Your task to perform on an android device: turn on notifications settings in the gmail app Image 0: 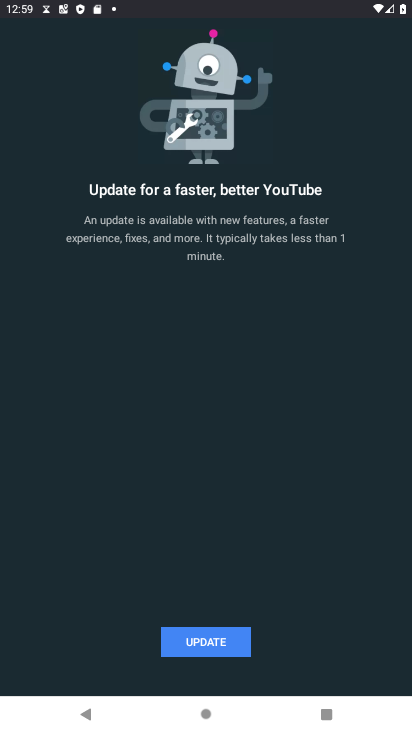
Step 0: press back button
Your task to perform on an android device: turn on notifications settings in the gmail app Image 1: 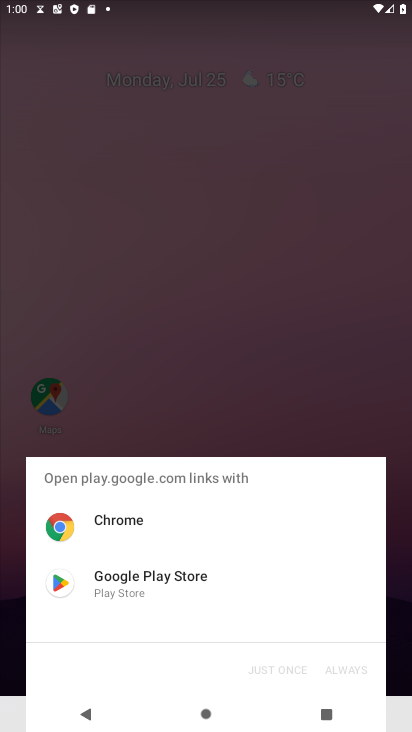
Step 1: press home button
Your task to perform on an android device: turn on notifications settings in the gmail app Image 2: 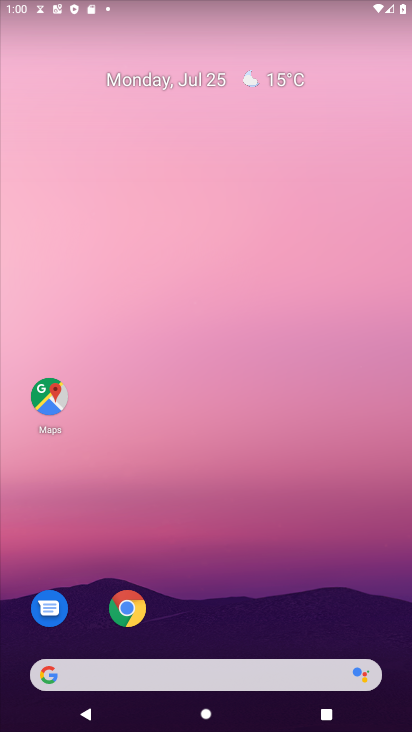
Step 2: drag from (261, 604) to (330, 123)
Your task to perform on an android device: turn on notifications settings in the gmail app Image 3: 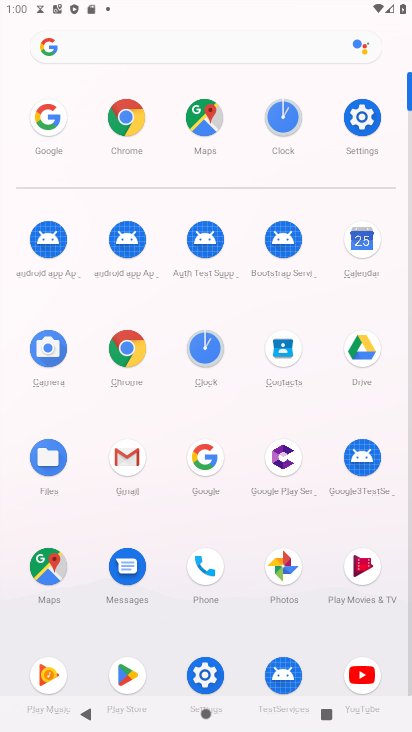
Step 3: click (136, 463)
Your task to perform on an android device: turn on notifications settings in the gmail app Image 4: 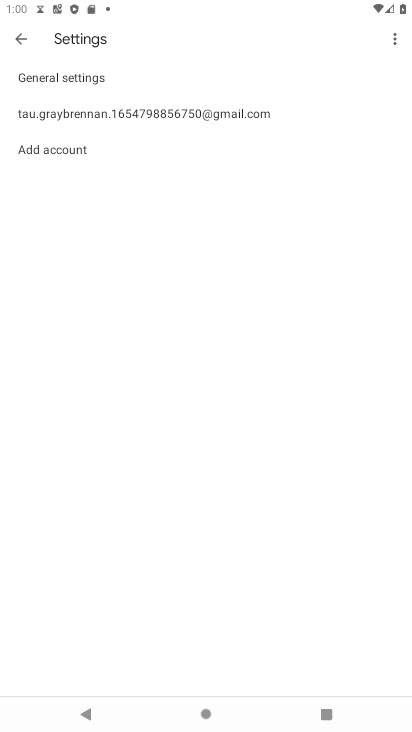
Step 4: click (208, 135)
Your task to perform on an android device: turn on notifications settings in the gmail app Image 5: 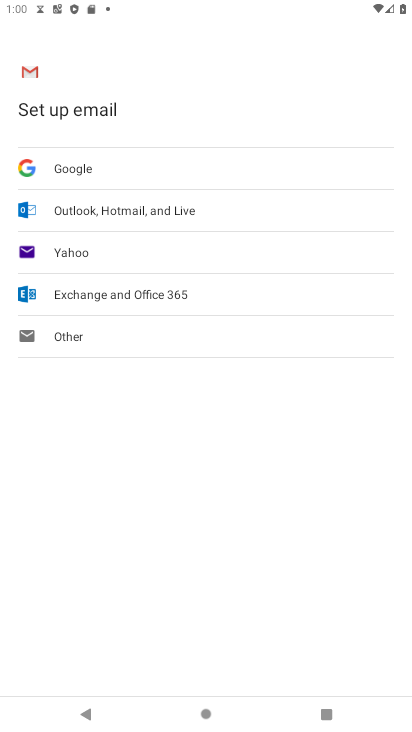
Step 5: press back button
Your task to perform on an android device: turn on notifications settings in the gmail app Image 6: 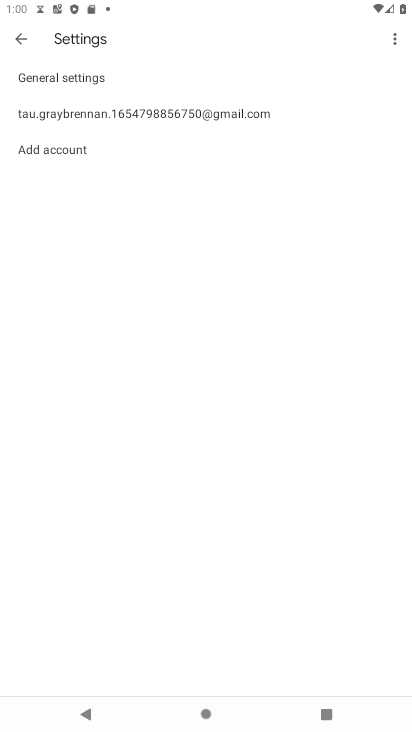
Step 6: click (186, 109)
Your task to perform on an android device: turn on notifications settings in the gmail app Image 7: 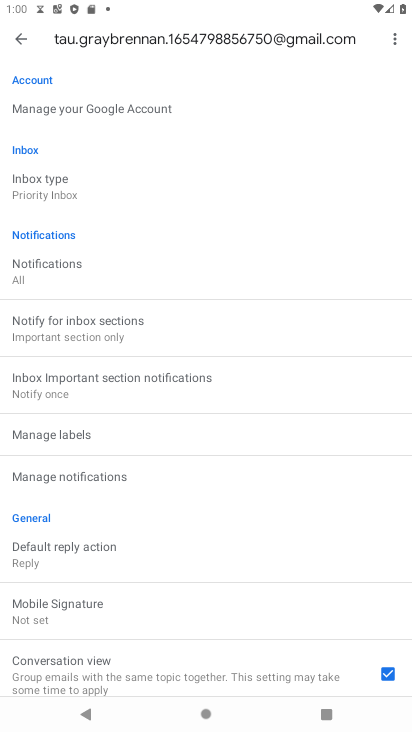
Step 7: click (283, 381)
Your task to perform on an android device: turn on notifications settings in the gmail app Image 8: 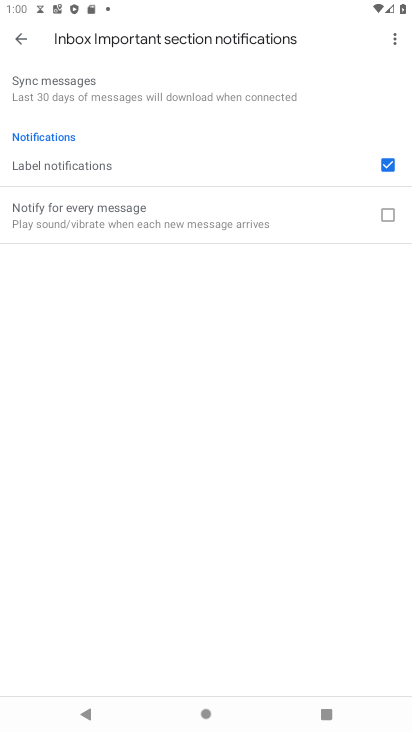
Step 8: press back button
Your task to perform on an android device: turn on notifications settings in the gmail app Image 9: 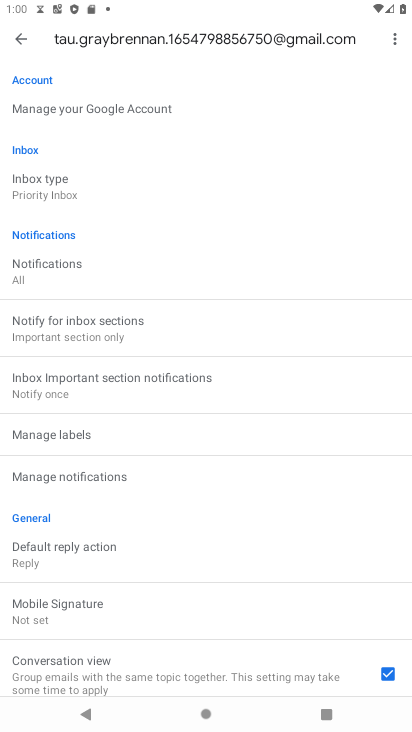
Step 9: click (161, 475)
Your task to perform on an android device: turn on notifications settings in the gmail app Image 10: 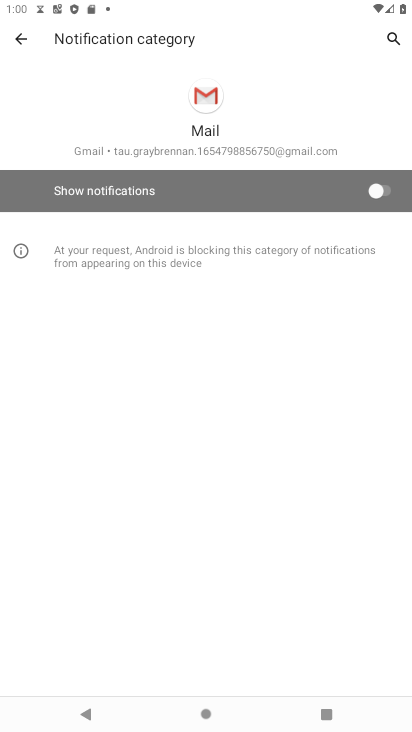
Step 10: click (372, 181)
Your task to perform on an android device: turn on notifications settings in the gmail app Image 11: 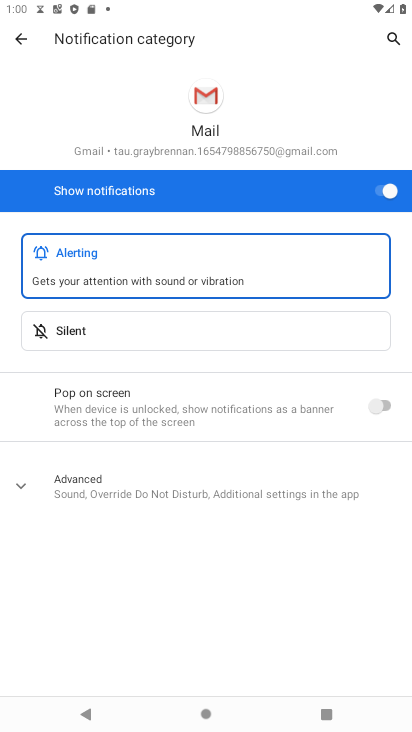
Step 11: task complete